Your task to perform on an android device: Open Google Maps and go to "Timeline" Image 0: 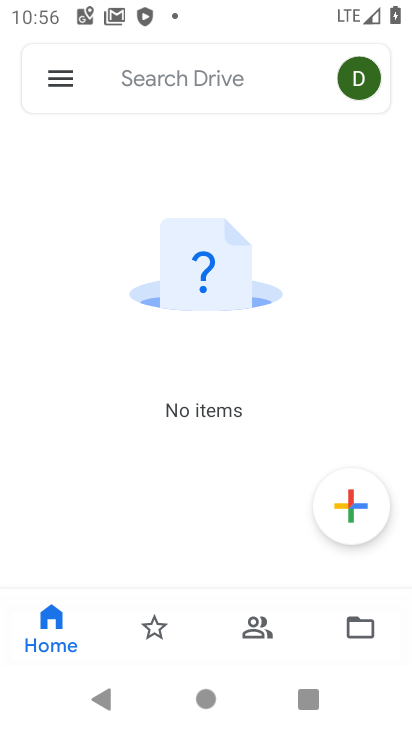
Step 0: task complete